Your task to perform on an android device: What's the weather going to be tomorrow? Image 0: 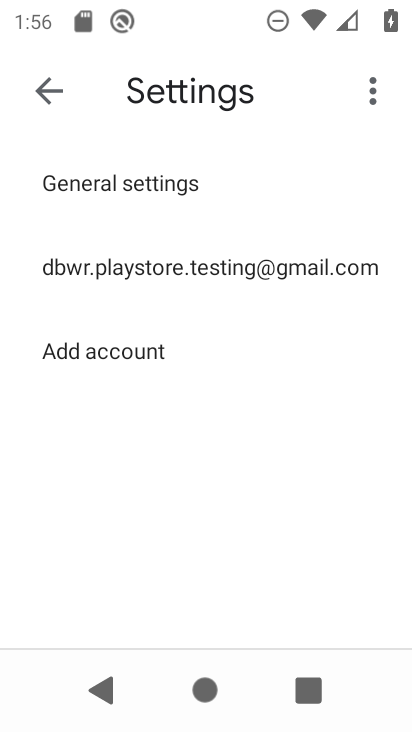
Step 0: press home button
Your task to perform on an android device: What's the weather going to be tomorrow? Image 1: 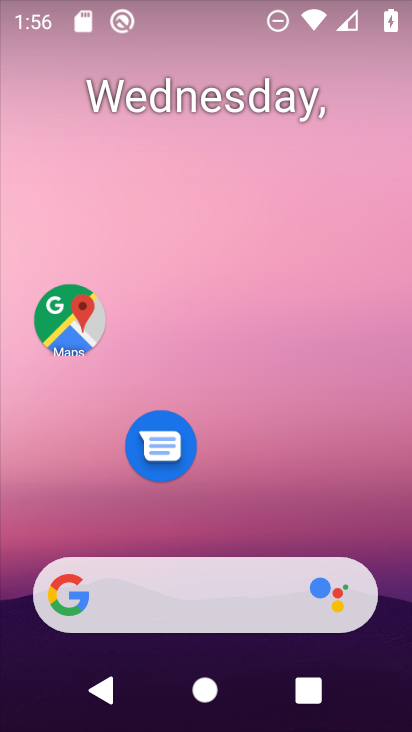
Step 1: click (266, 578)
Your task to perform on an android device: What's the weather going to be tomorrow? Image 2: 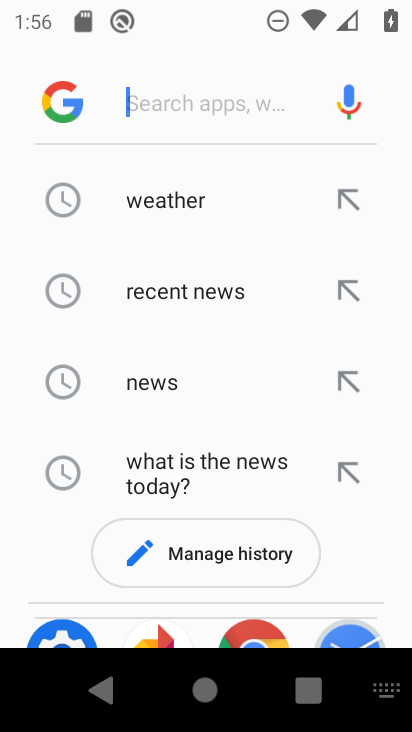
Step 2: click (220, 180)
Your task to perform on an android device: What's the weather going to be tomorrow? Image 3: 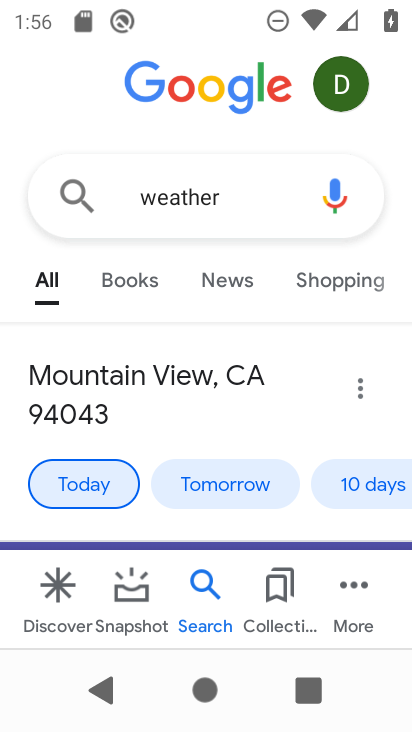
Step 3: task complete